Your task to perform on an android device: set the stopwatch Image 0: 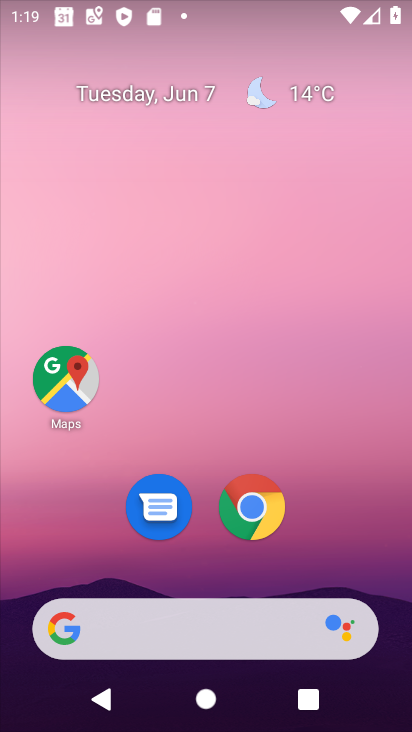
Step 0: drag from (392, 601) to (310, 4)
Your task to perform on an android device: set the stopwatch Image 1: 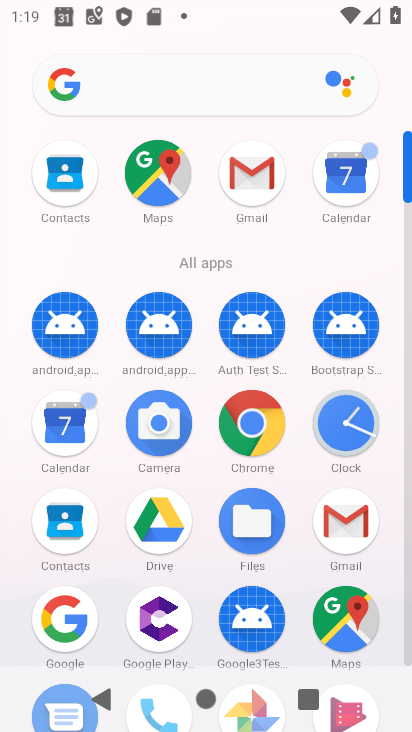
Step 1: click (408, 630)
Your task to perform on an android device: set the stopwatch Image 2: 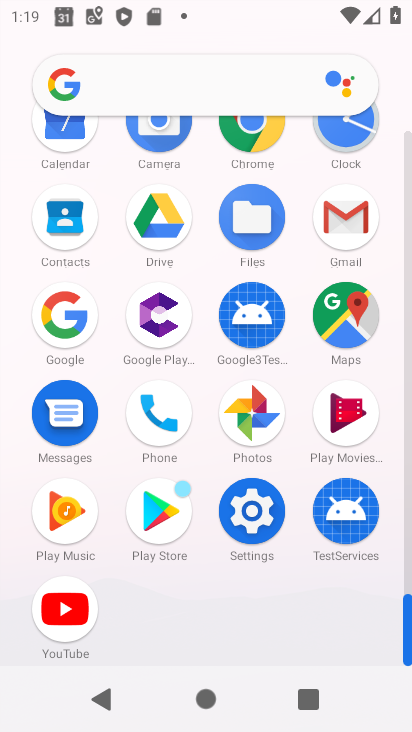
Step 2: click (346, 215)
Your task to perform on an android device: set the stopwatch Image 3: 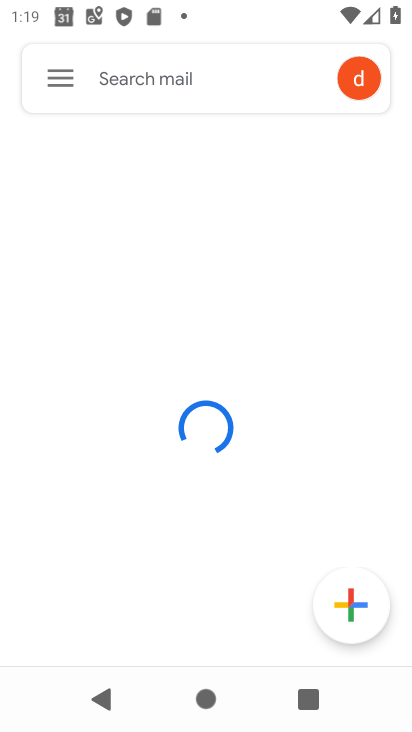
Step 3: press home button
Your task to perform on an android device: set the stopwatch Image 4: 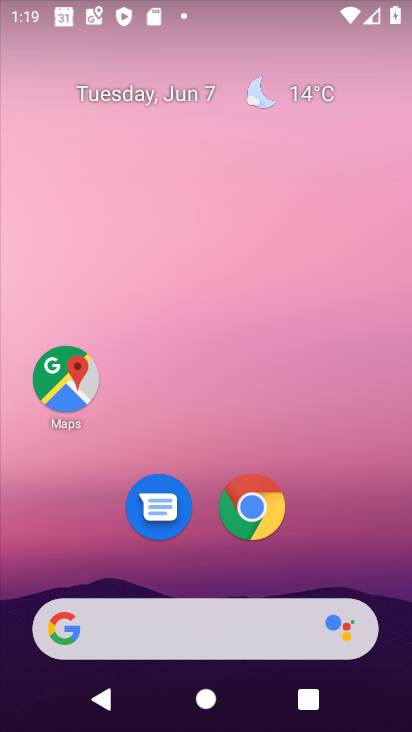
Step 4: drag from (370, 581) to (340, 66)
Your task to perform on an android device: set the stopwatch Image 5: 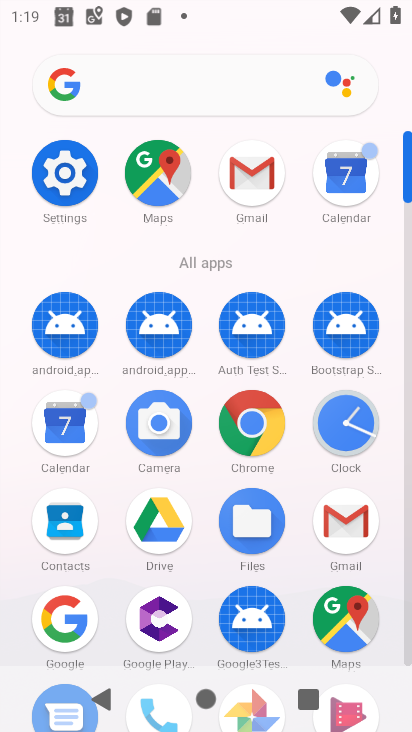
Step 5: click (344, 423)
Your task to perform on an android device: set the stopwatch Image 6: 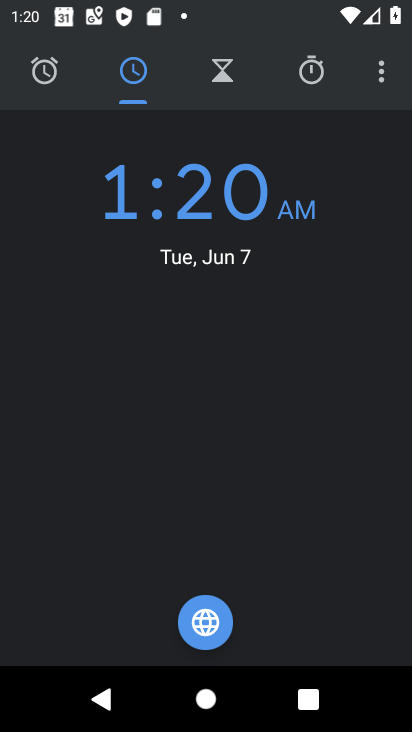
Step 6: click (310, 71)
Your task to perform on an android device: set the stopwatch Image 7: 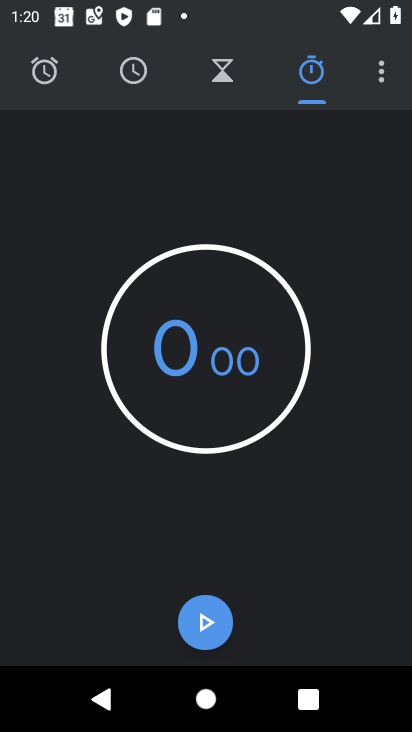
Step 7: task complete